Your task to perform on an android device: create a new album in the google photos Image 0: 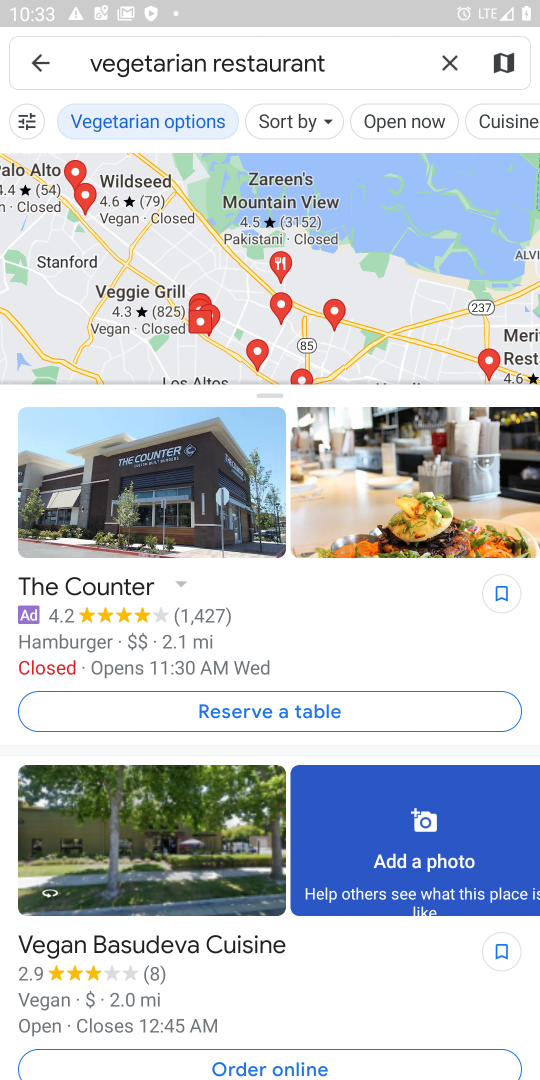
Step 0: press home button
Your task to perform on an android device: create a new album in the google photos Image 1: 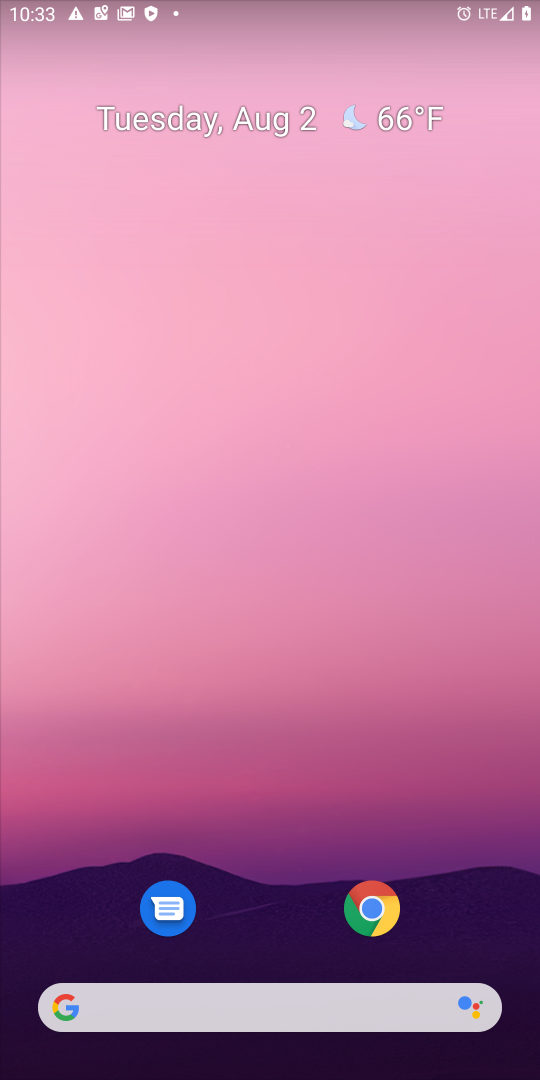
Step 1: drag from (259, 839) to (271, 194)
Your task to perform on an android device: create a new album in the google photos Image 2: 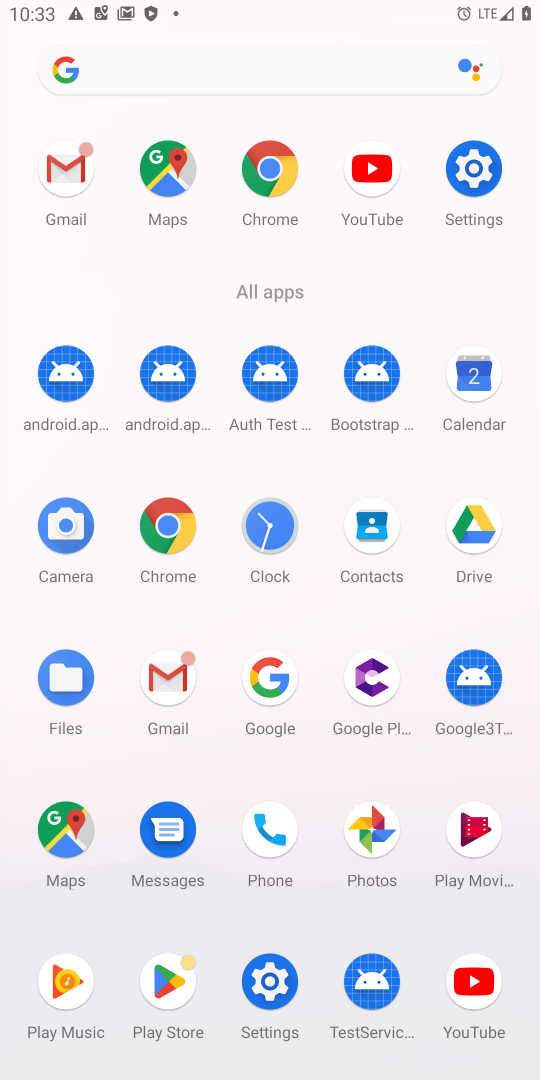
Step 2: click (387, 839)
Your task to perform on an android device: create a new album in the google photos Image 3: 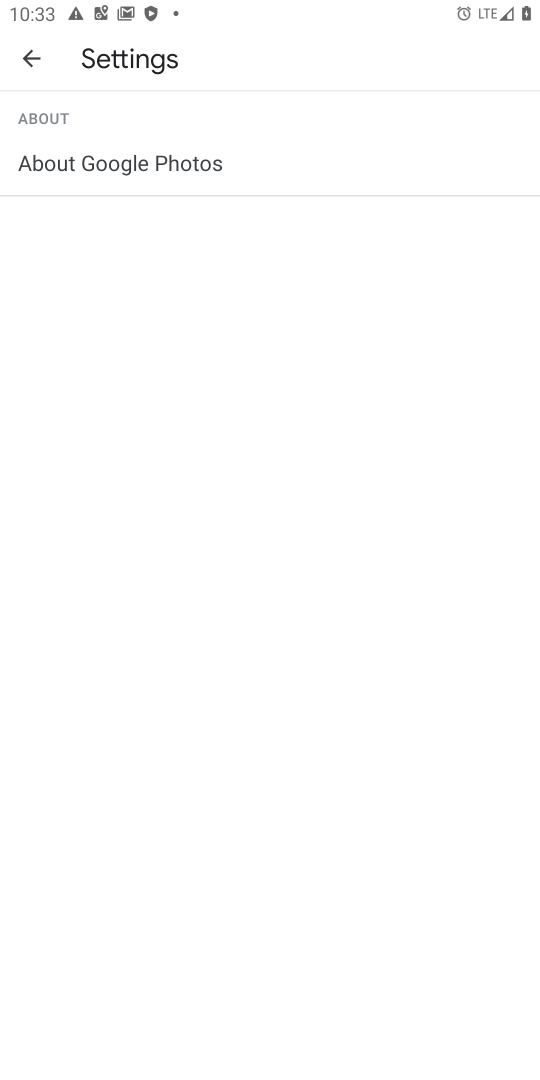
Step 3: press back button
Your task to perform on an android device: create a new album in the google photos Image 4: 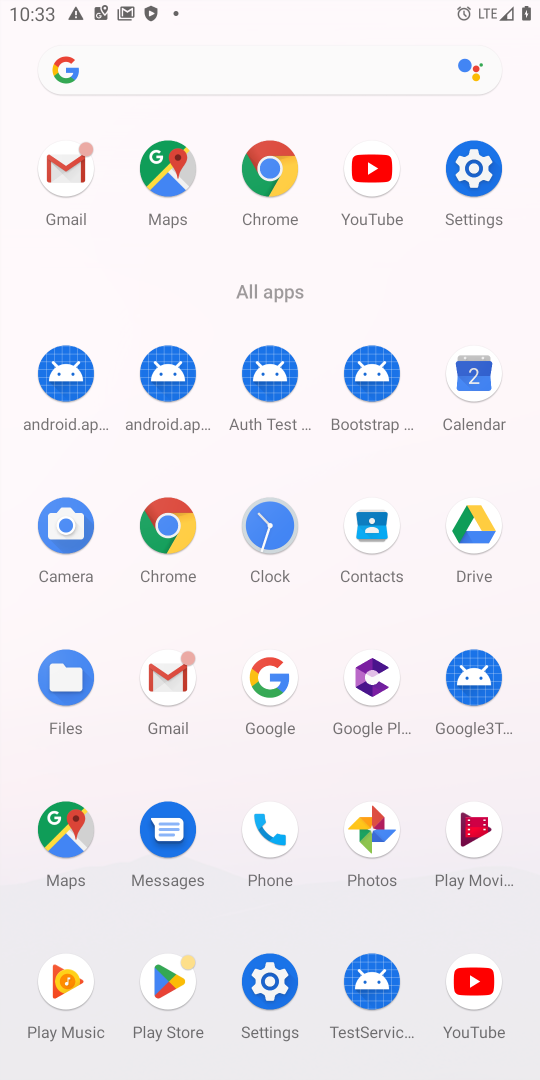
Step 4: click (391, 850)
Your task to perform on an android device: create a new album in the google photos Image 5: 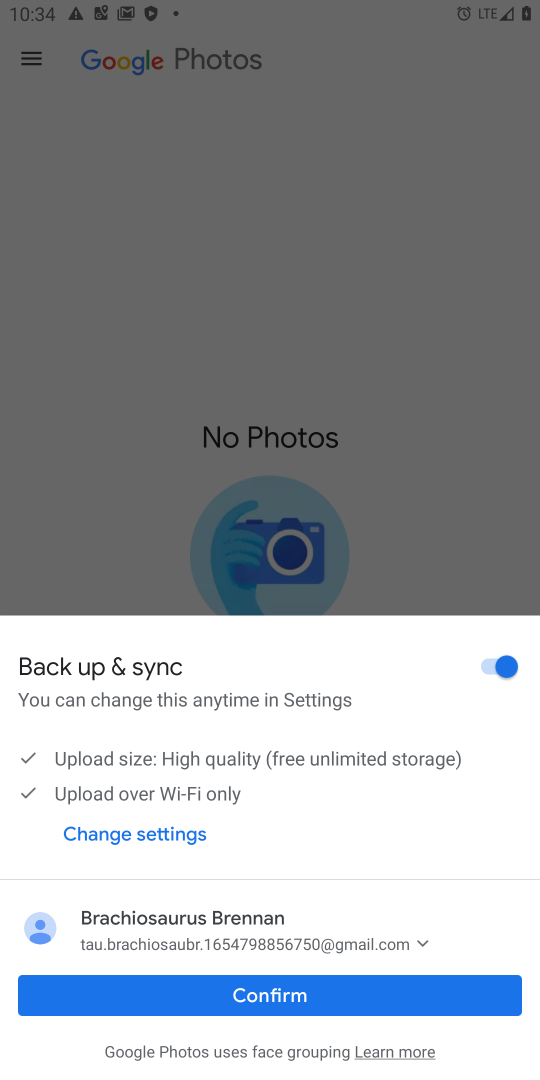
Step 5: click (369, 994)
Your task to perform on an android device: create a new album in the google photos Image 6: 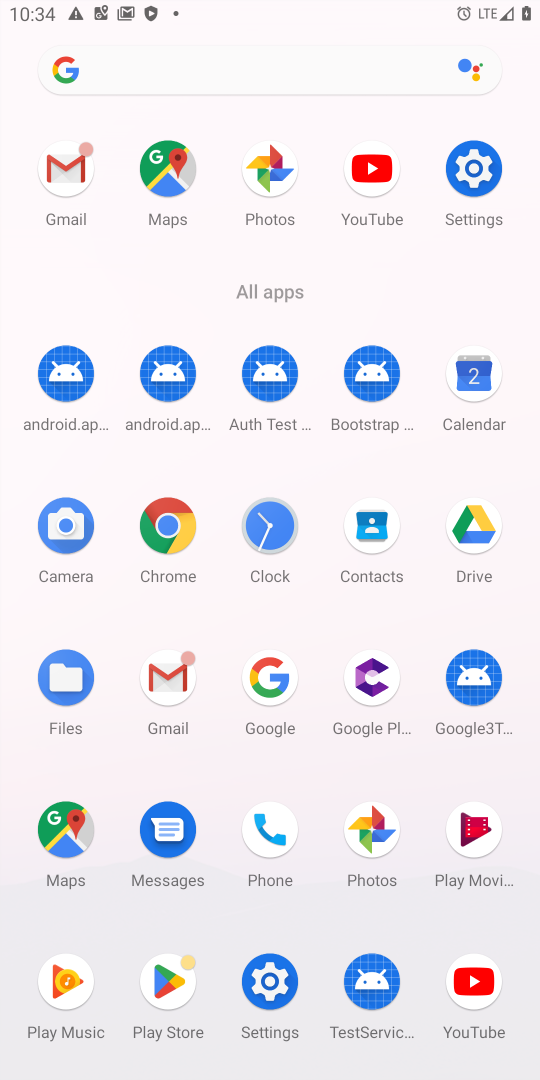
Step 6: click (361, 845)
Your task to perform on an android device: create a new album in the google photos Image 7: 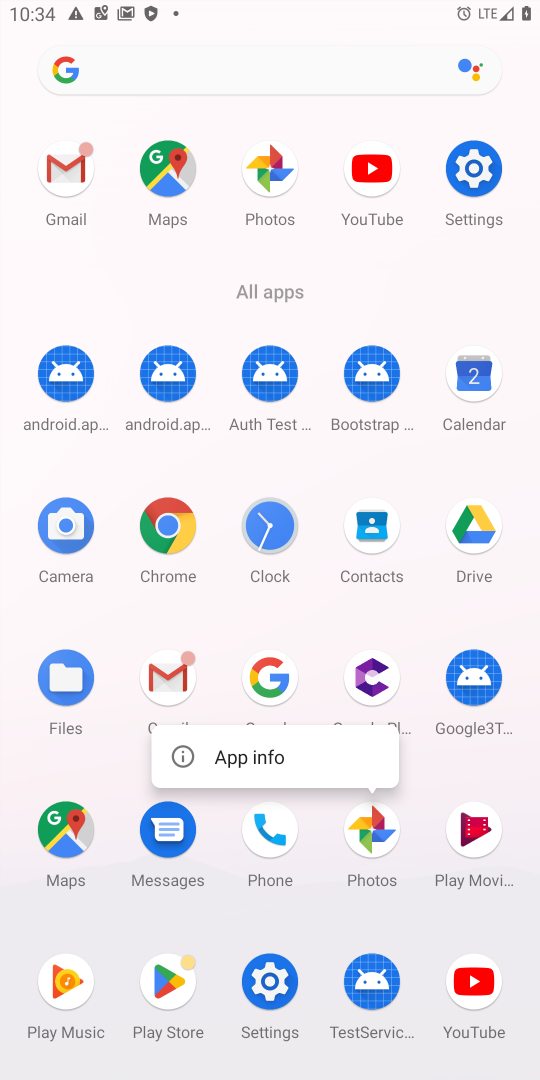
Step 7: click (362, 842)
Your task to perform on an android device: create a new album in the google photos Image 8: 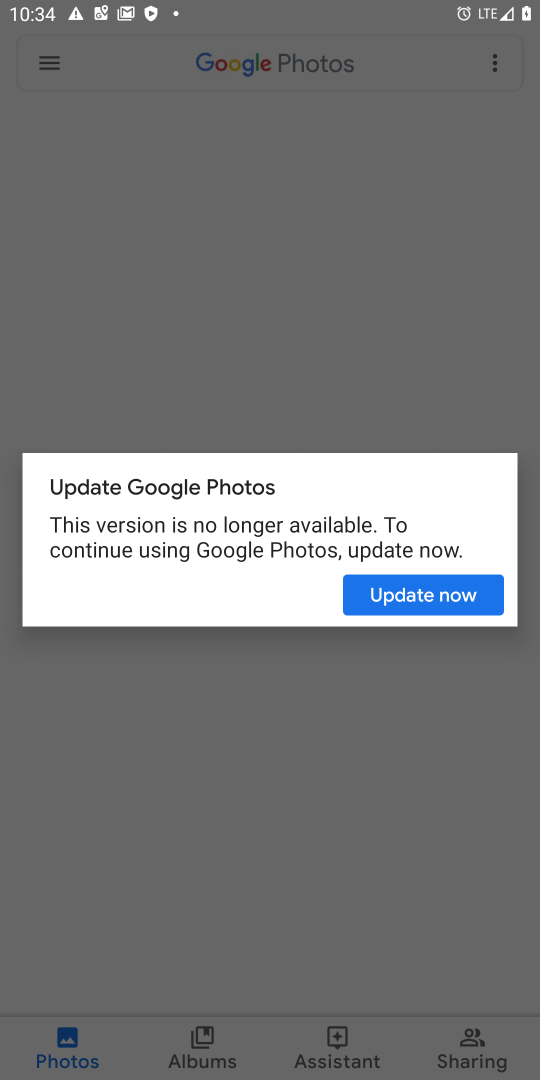
Step 8: press back button
Your task to perform on an android device: create a new album in the google photos Image 9: 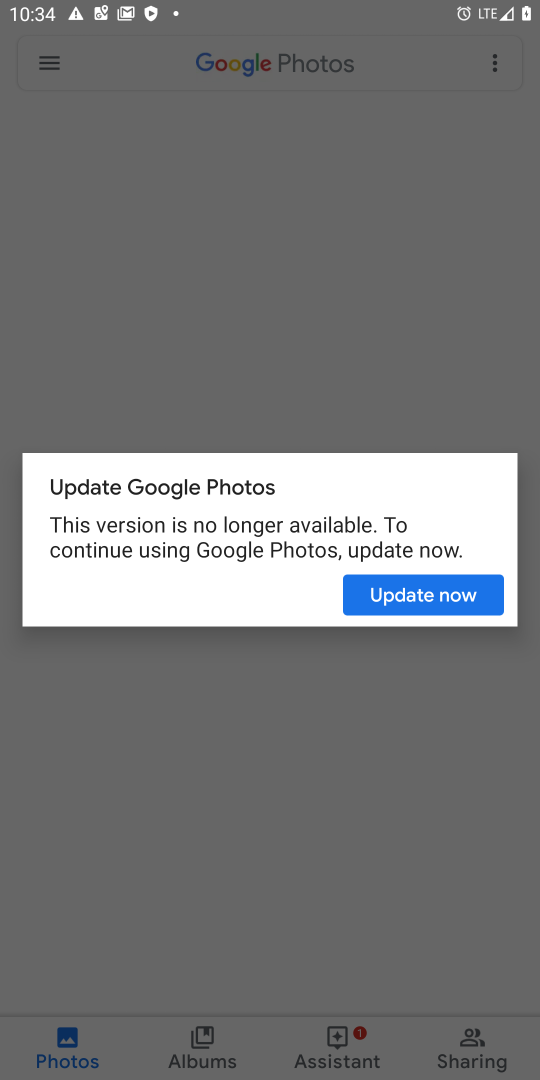
Step 9: click (471, 603)
Your task to perform on an android device: create a new album in the google photos Image 10: 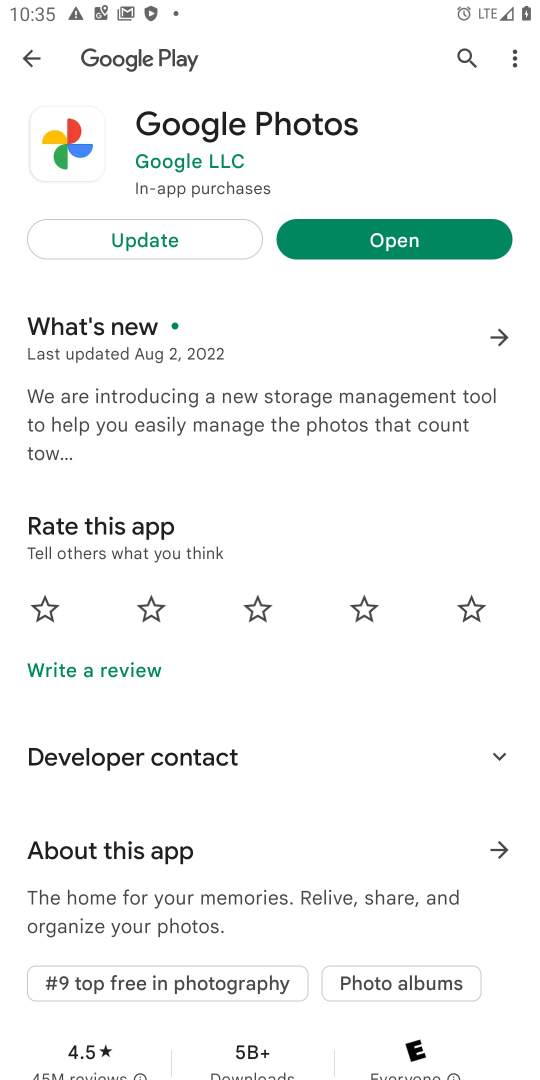
Step 10: click (181, 253)
Your task to perform on an android device: create a new album in the google photos Image 11: 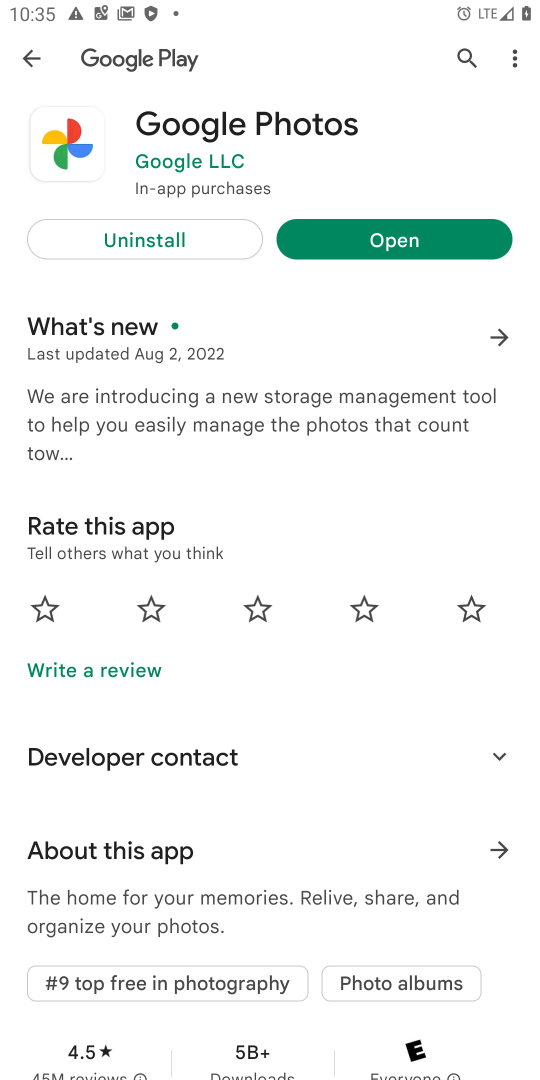
Step 11: click (376, 248)
Your task to perform on an android device: create a new album in the google photos Image 12: 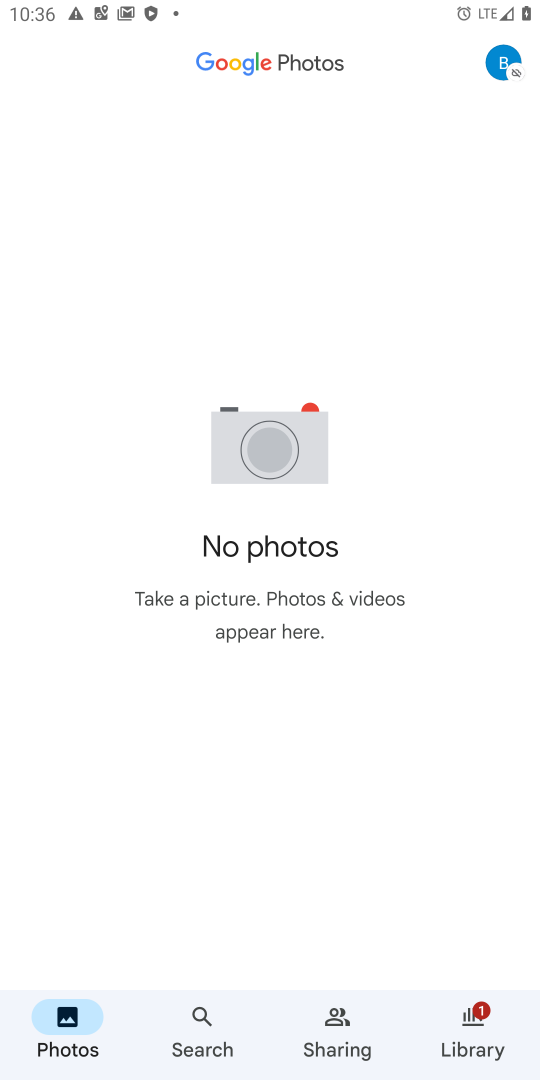
Step 12: click (463, 1030)
Your task to perform on an android device: create a new album in the google photos Image 13: 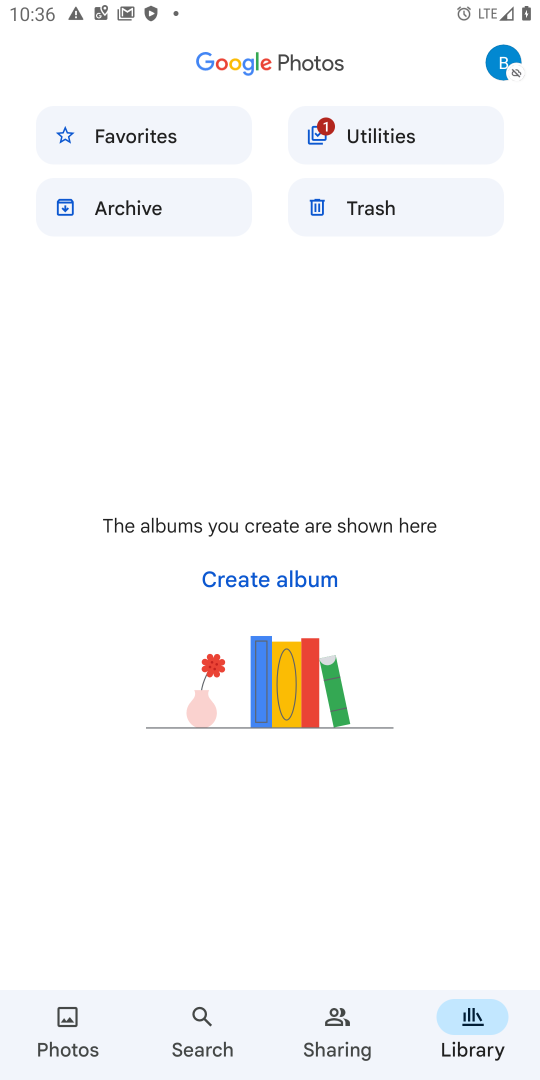
Step 13: click (316, 584)
Your task to perform on an android device: create a new album in the google photos Image 14: 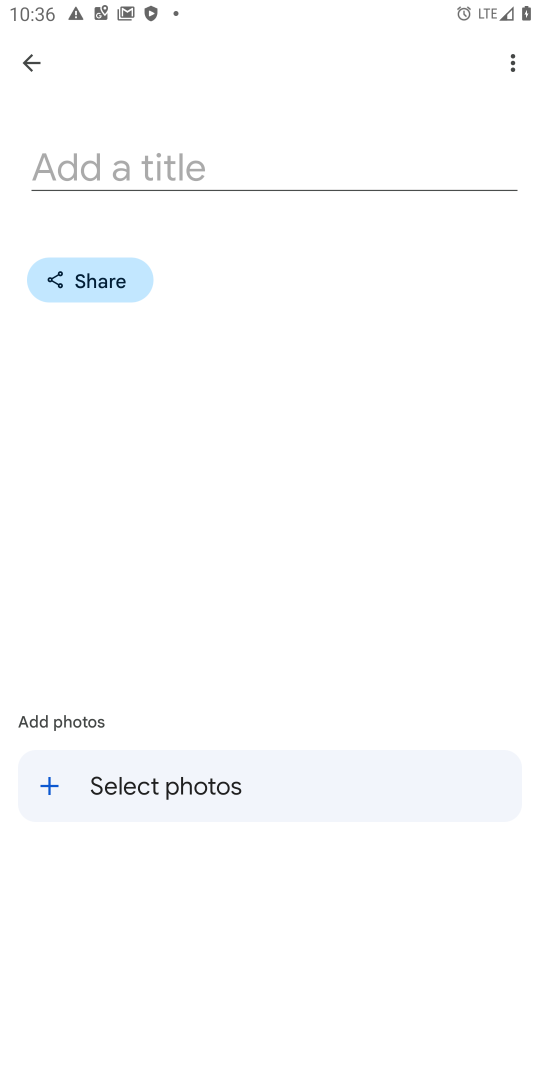
Step 14: click (132, 808)
Your task to perform on an android device: create a new album in the google photos Image 15: 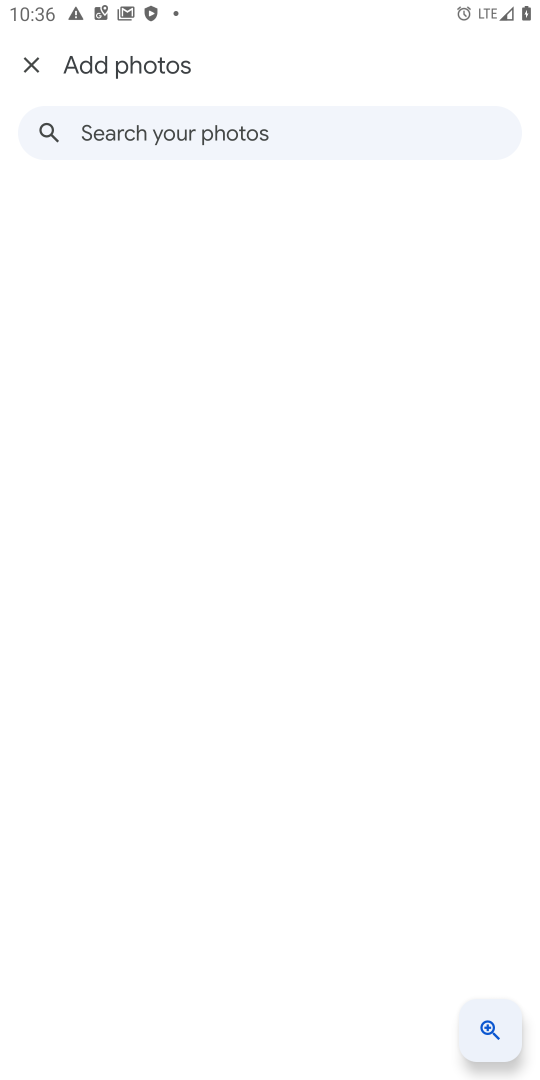
Step 15: click (480, 1032)
Your task to perform on an android device: create a new album in the google photos Image 16: 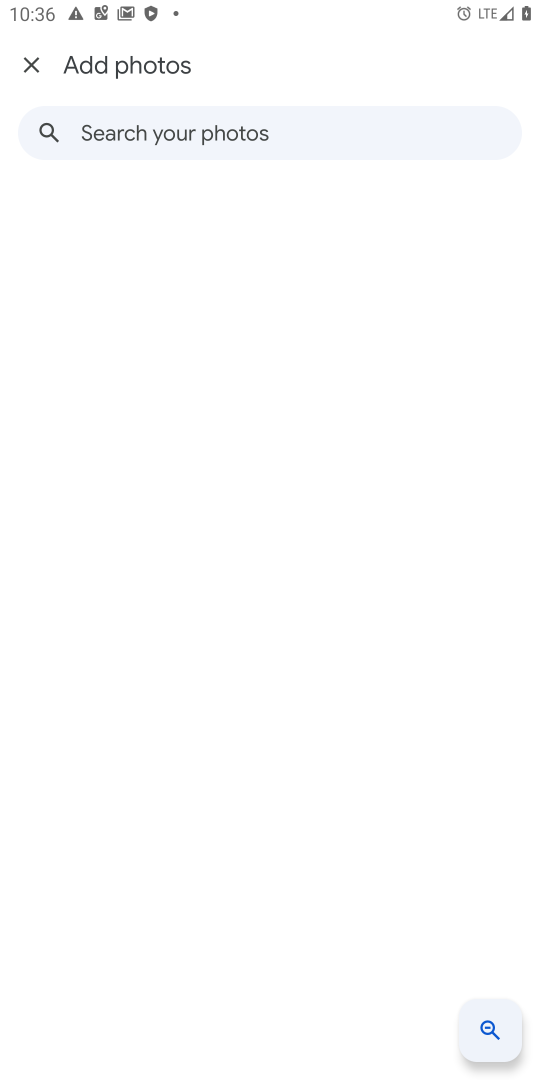
Step 16: click (25, 71)
Your task to perform on an android device: create a new album in the google photos Image 17: 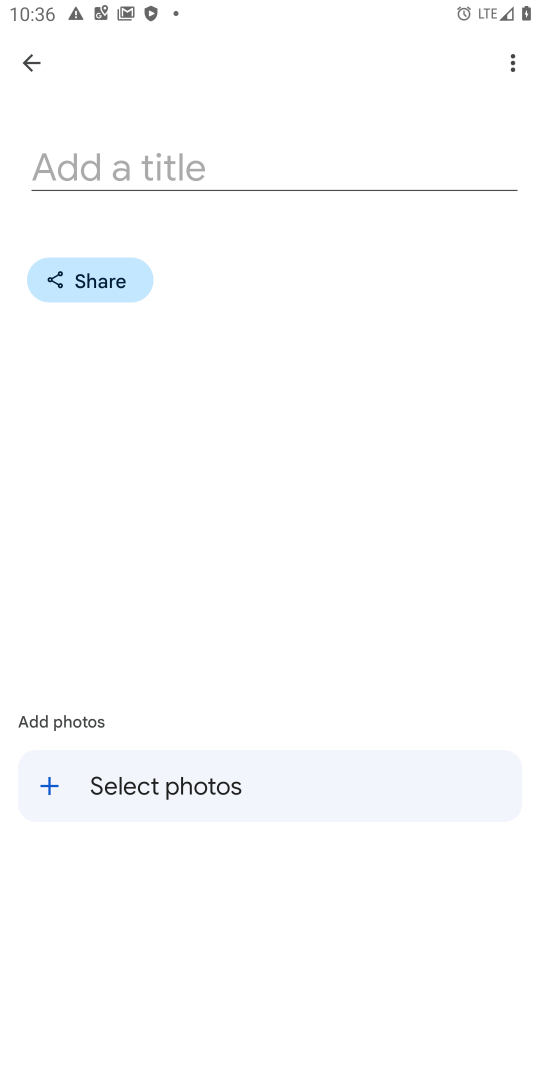
Step 17: click (109, 173)
Your task to perform on an android device: create a new album in the google photos Image 18: 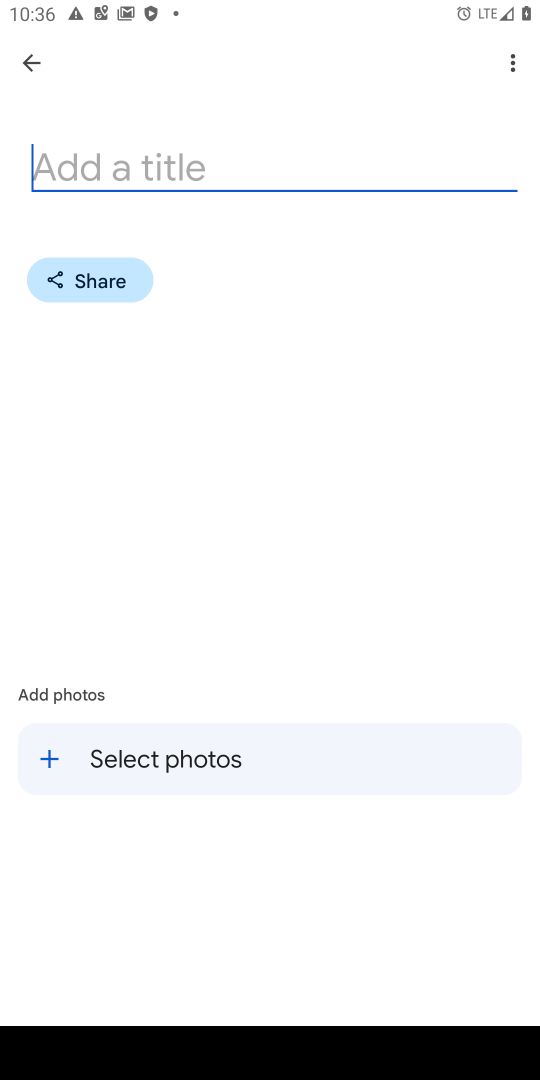
Step 18: type "fsdrzfgc"
Your task to perform on an android device: create a new album in the google photos Image 19: 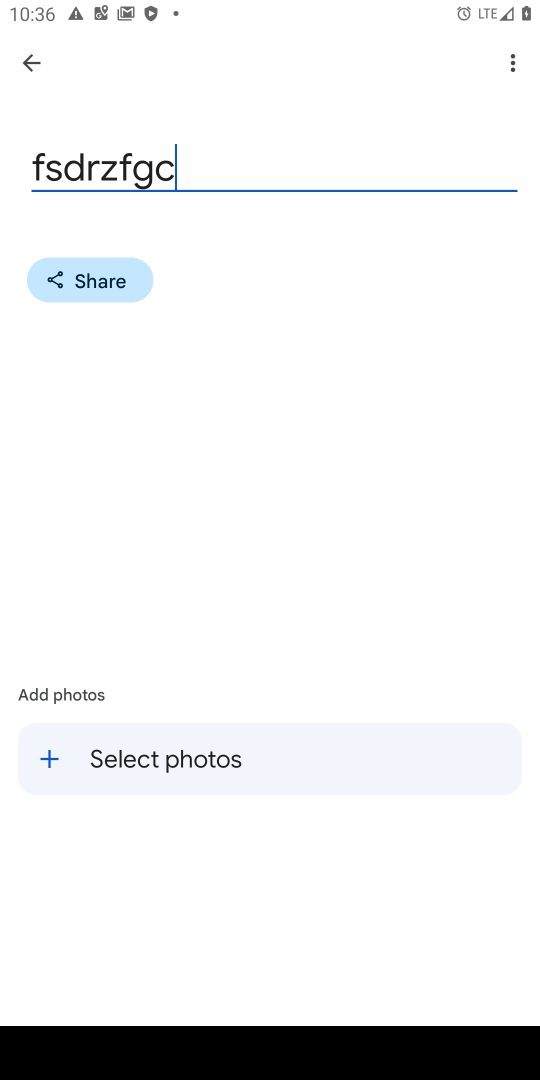
Step 19: type ""
Your task to perform on an android device: create a new album in the google photos Image 20: 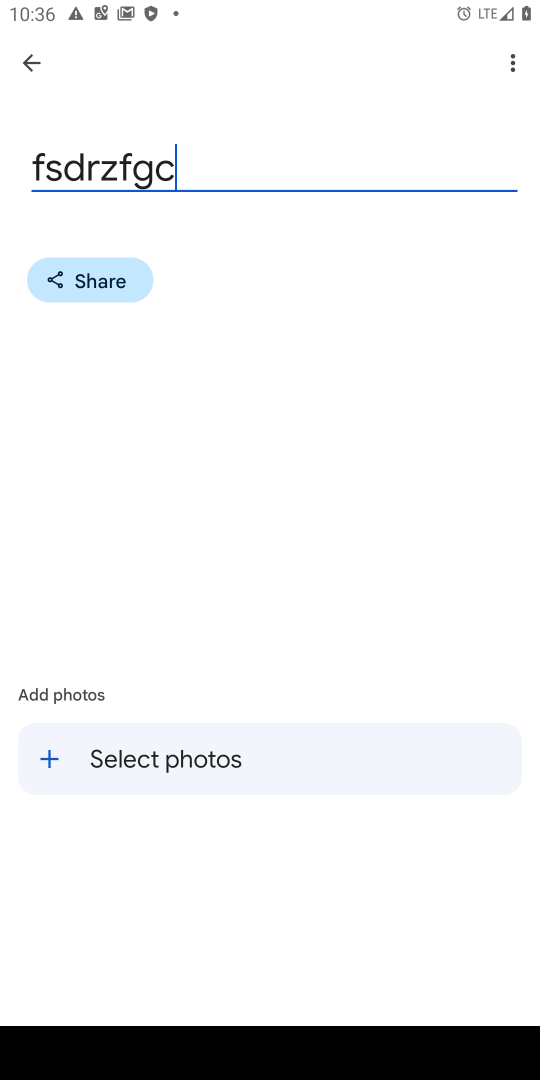
Step 20: task complete